Your task to perform on an android device: turn vacation reply on in the gmail app Image 0: 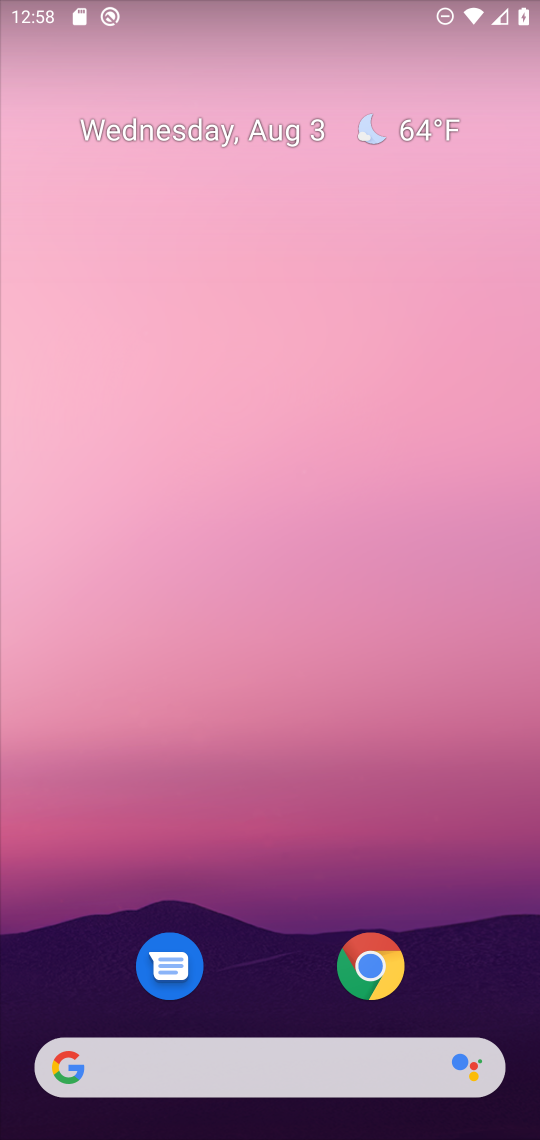
Step 0: drag from (260, 974) to (253, 254)
Your task to perform on an android device: turn vacation reply on in the gmail app Image 1: 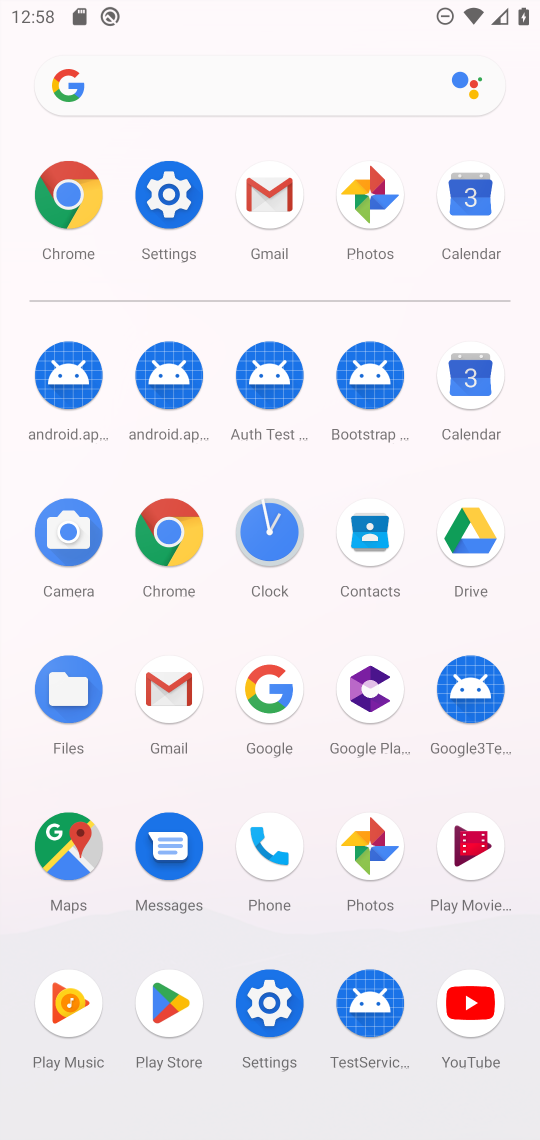
Step 1: click (255, 214)
Your task to perform on an android device: turn vacation reply on in the gmail app Image 2: 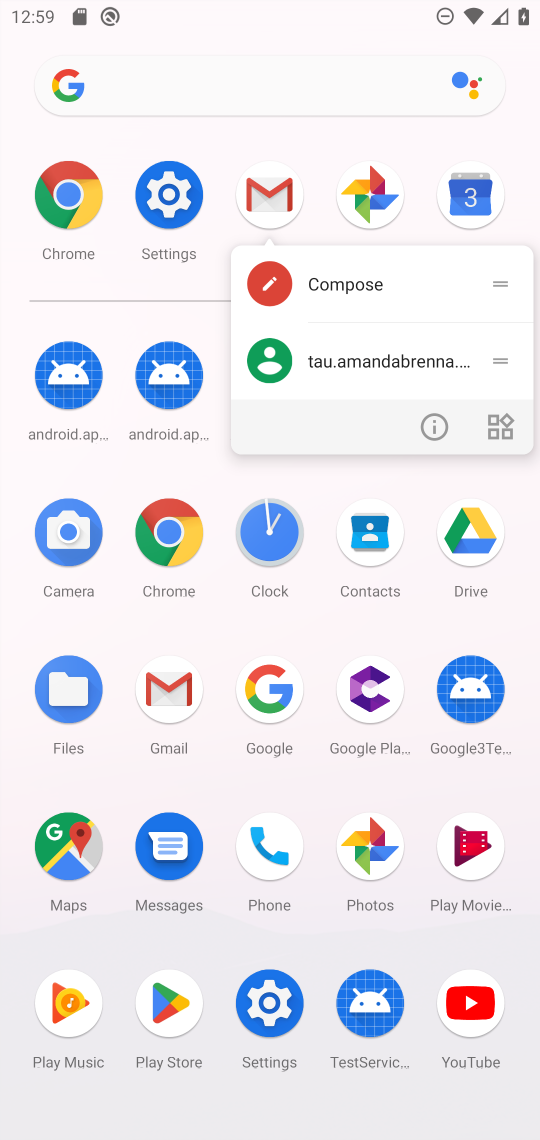
Step 2: click (257, 208)
Your task to perform on an android device: turn vacation reply on in the gmail app Image 3: 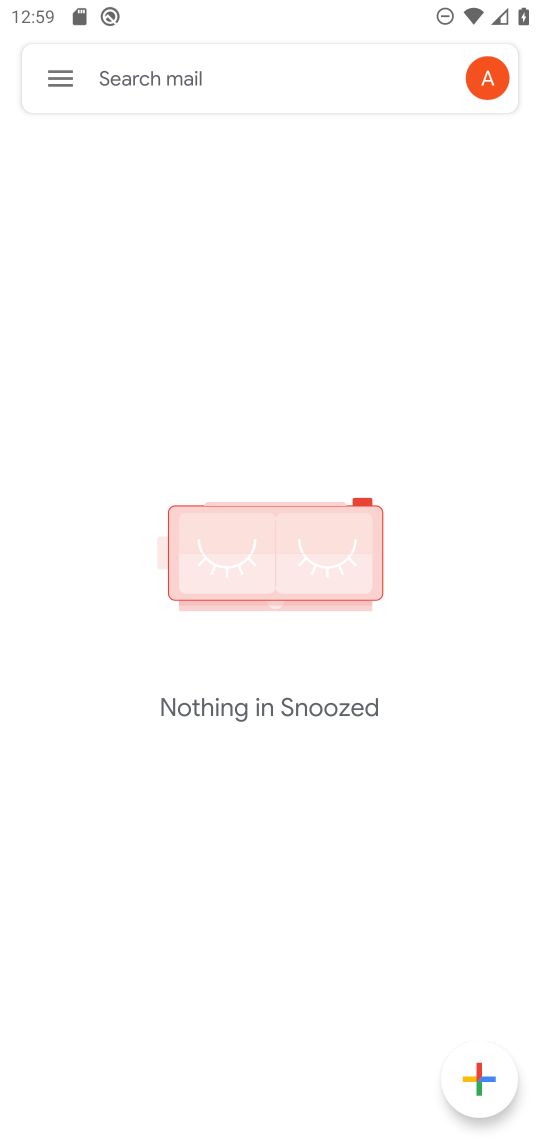
Step 3: click (57, 93)
Your task to perform on an android device: turn vacation reply on in the gmail app Image 4: 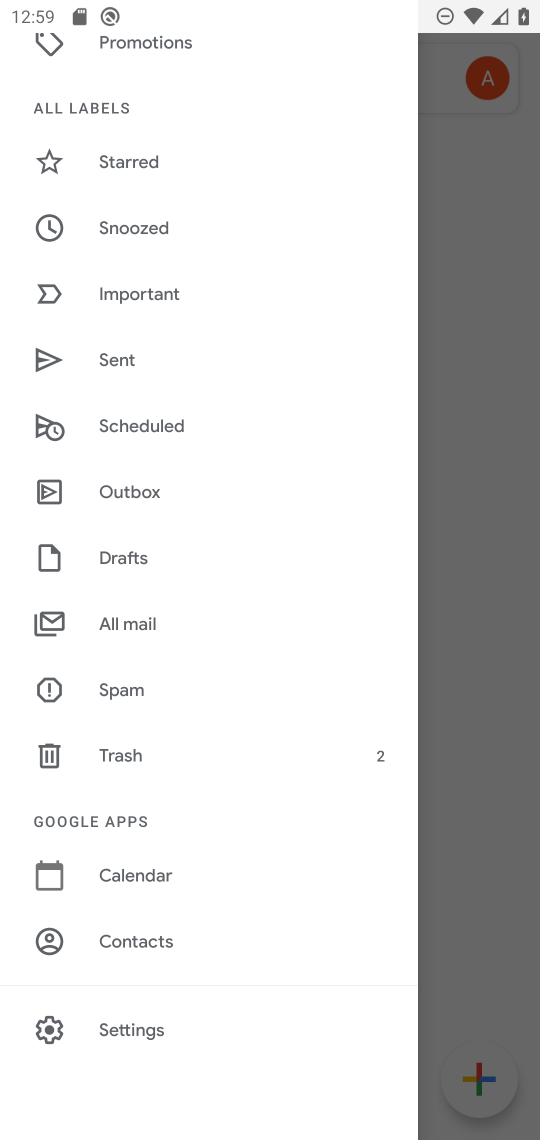
Step 4: click (154, 1018)
Your task to perform on an android device: turn vacation reply on in the gmail app Image 5: 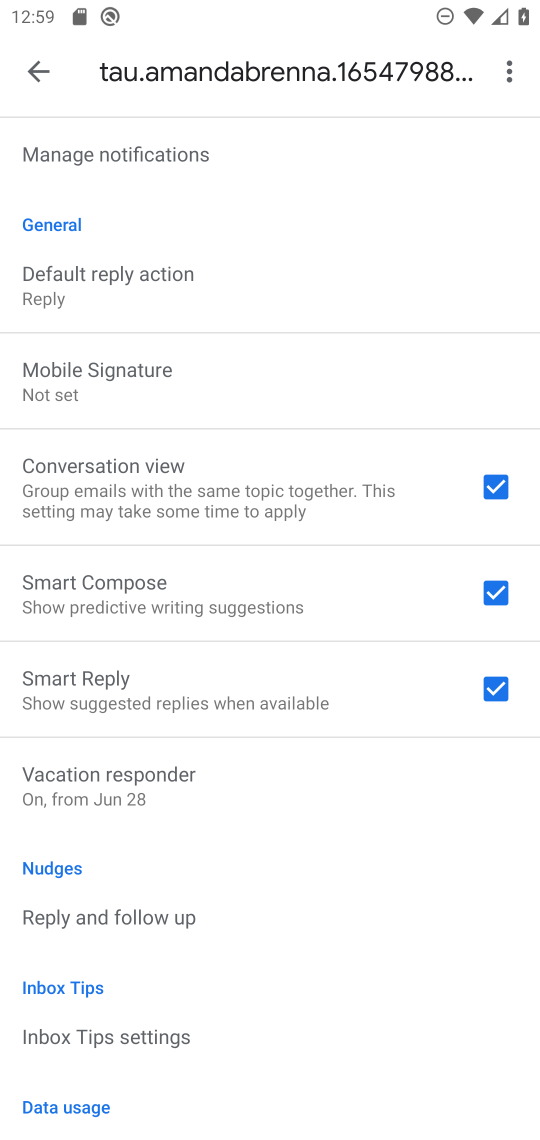
Step 5: click (174, 791)
Your task to perform on an android device: turn vacation reply on in the gmail app Image 6: 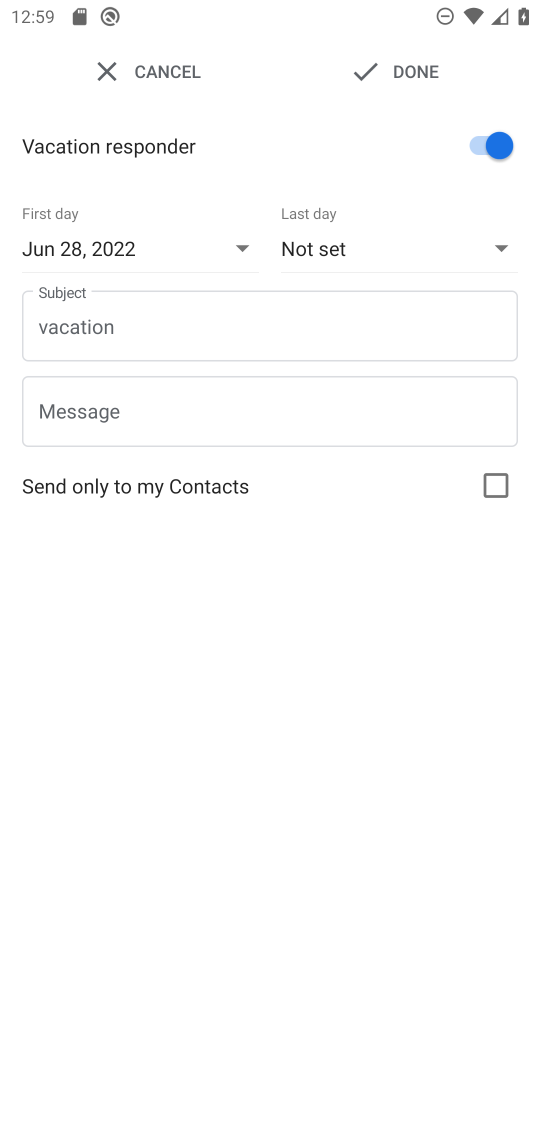
Step 6: task complete